Your task to perform on an android device: turn off translation in the chrome app Image 0: 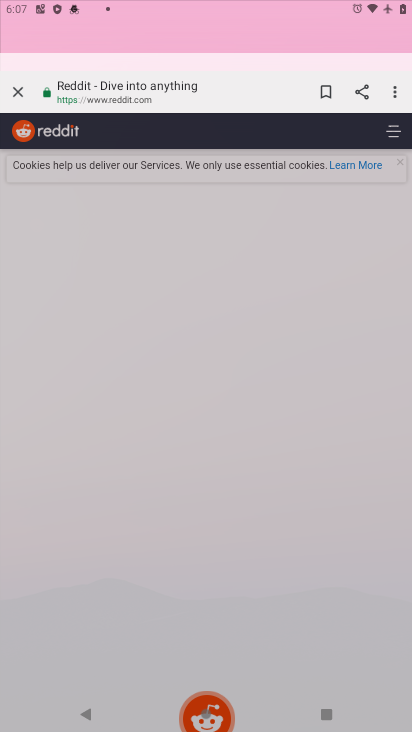
Step 0: press home button
Your task to perform on an android device: turn off translation in the chrome app Image 1: 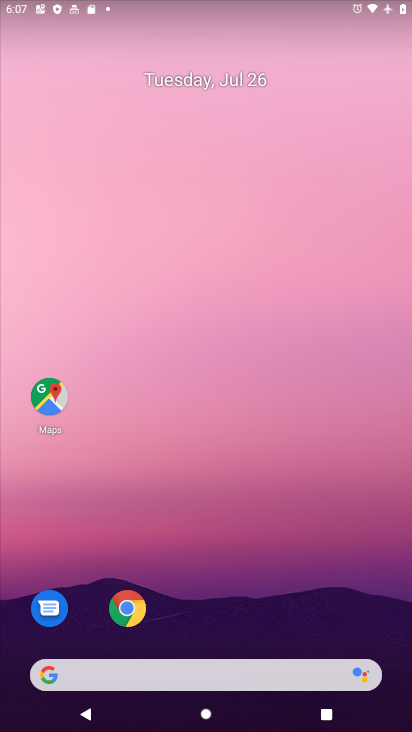
Step 1: drag from (264, 623) to (279, 131)
Your task to perform on an android device: turn off translation in the chrome app Image 2: 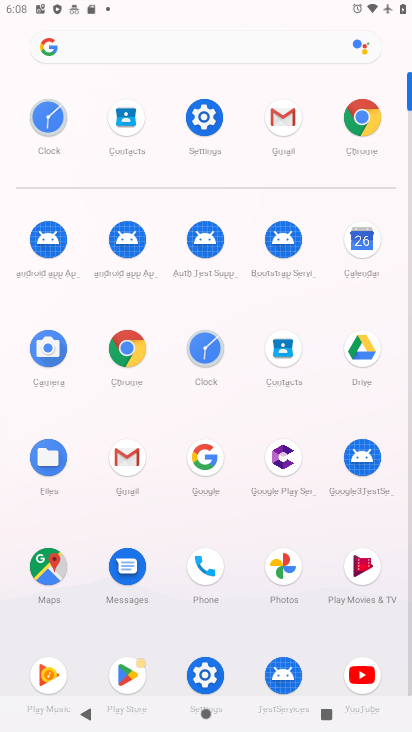
Step 2: click (370, 127)
Your task to perform on an android device: turn off translation in the chrome app Image 3: 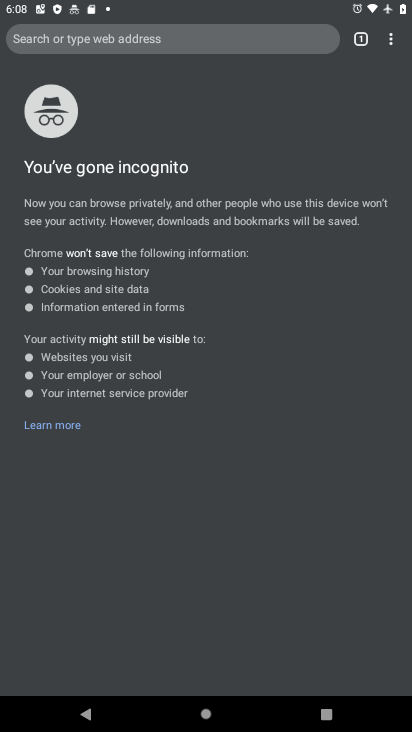
Step 3: drag from (394, 40) to (247, 286)
Your task to perform on an android device: turn off translation in the chrome app Image 4: 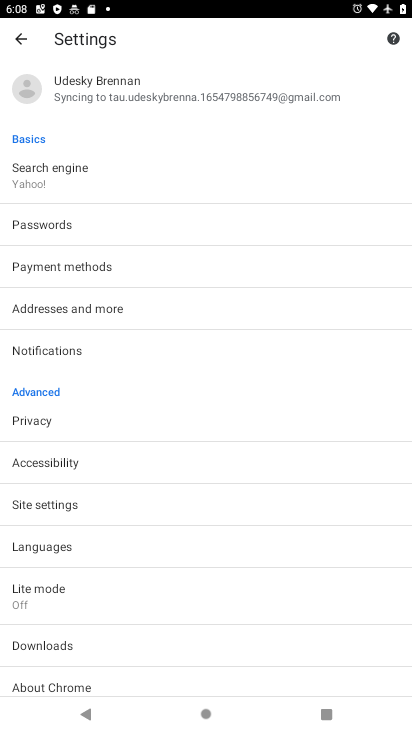
Step 4: click (33, 546)
Your task to perform on an android device: turn off translation in the chrome app Image 5: 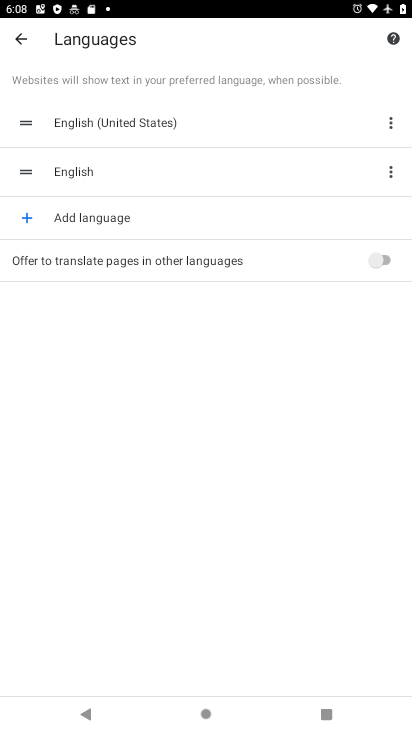
Step 5: task complete